Your task to perform on an android device: Open calendar and show me the second week of next month Image 0: 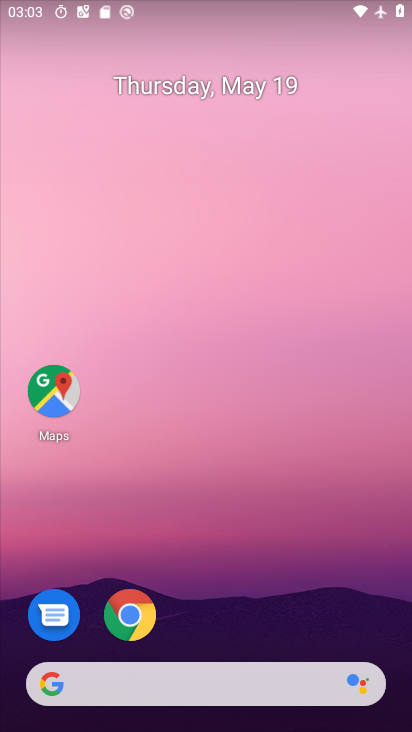
Step 0: drag from (256, 566) to (249, 49)
Your task to perform on an android device: Open calendar and show me the second week of next month Image 1: 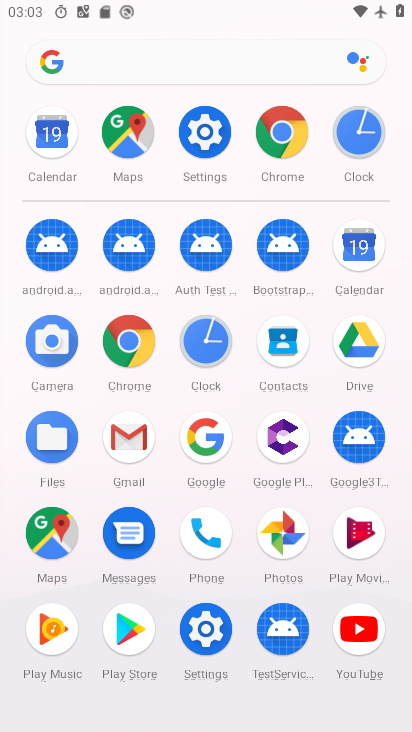
Step 1: drag from (7, 513) to (12, 253)
Your task to perform on an android device: Open calendar and show me the second week of next month Image 2: 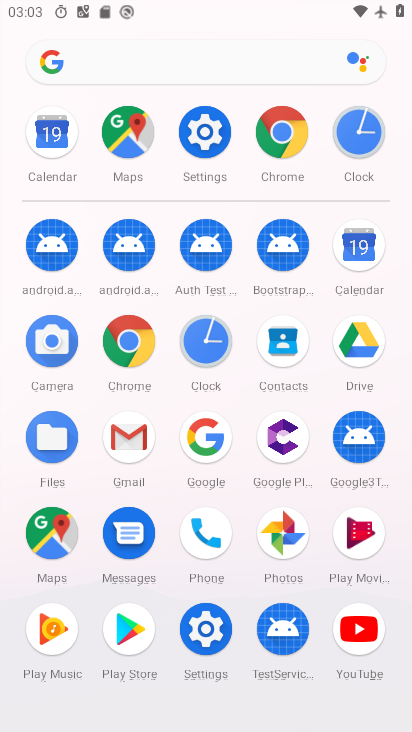
Step 2: click (360, 245)
Your task to perform on an android device: Open calendar and show me the second week of next month Image 3: 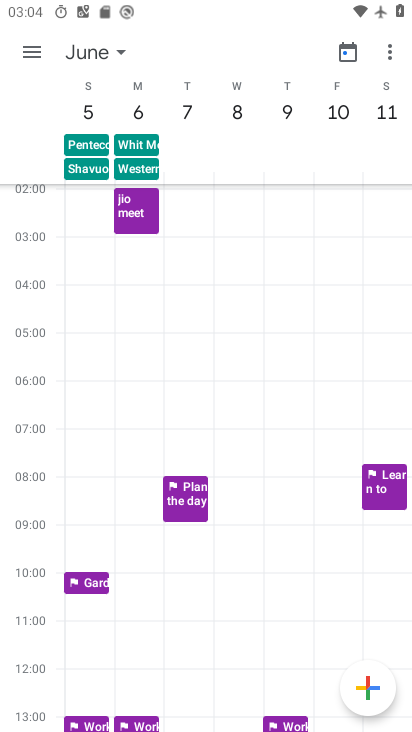
Step 3: task complete